Your task to perform on an android device: find which apps use the phone's location Image 0: 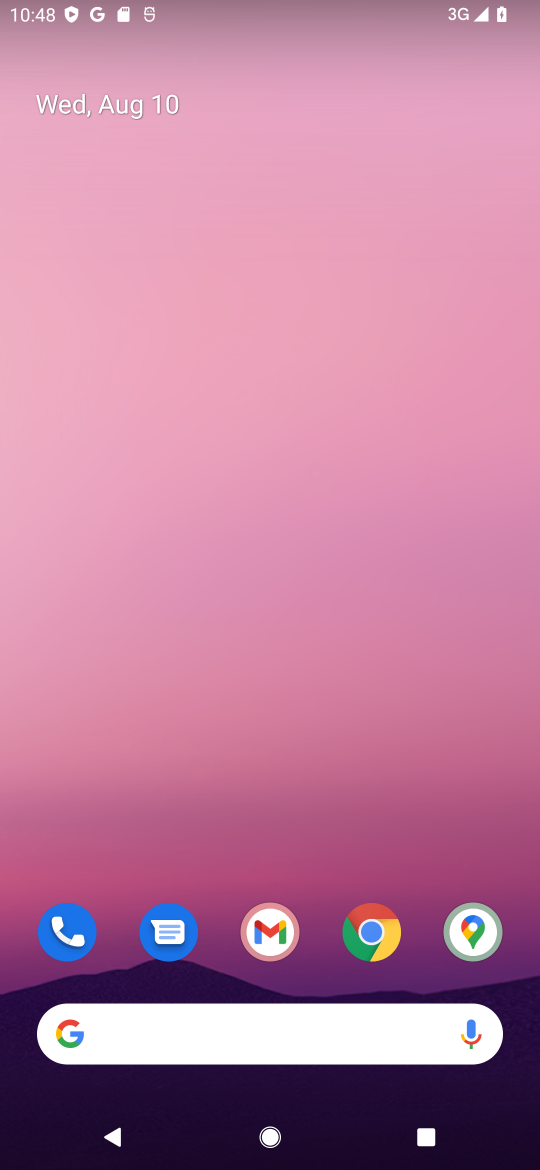
Step 0: press home button
Your task to perform on an android device: find which apps use the phone's location Image 1: 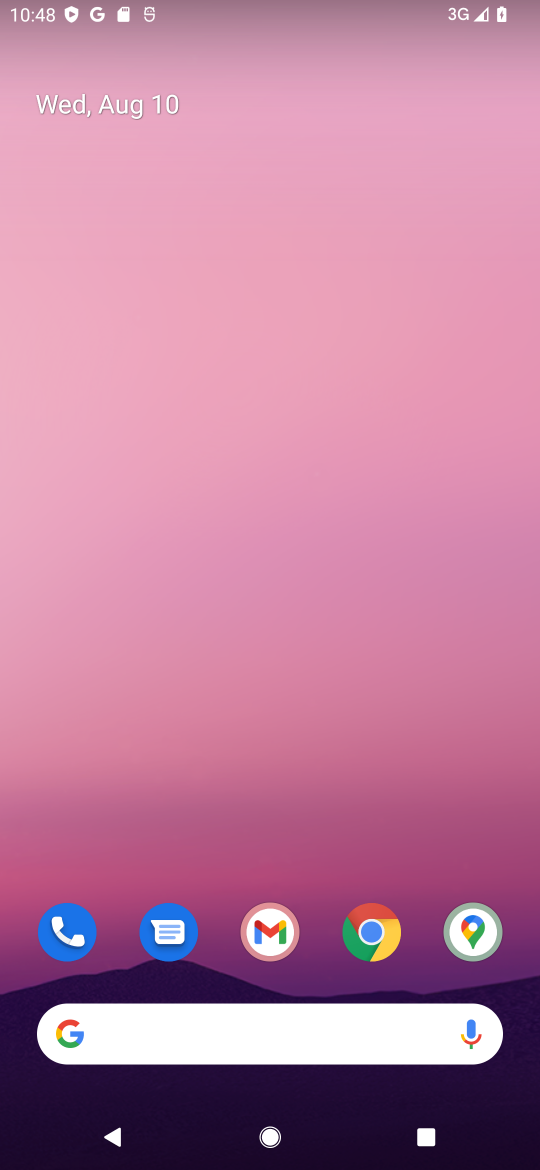
Step 1: drag from (264, 821) to (297, 8)
Your task to perform on an android device: find which apps use the phone's location Image 2: 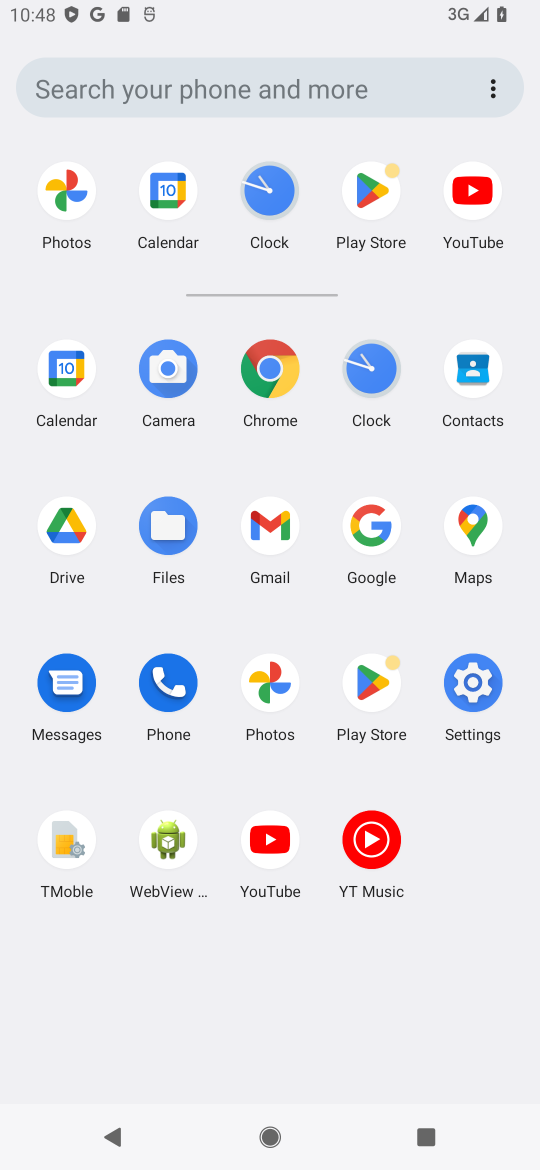
Step 2: click (472, 682)
Your task to perform on an android device: find which apps use the phone's location Image 3: 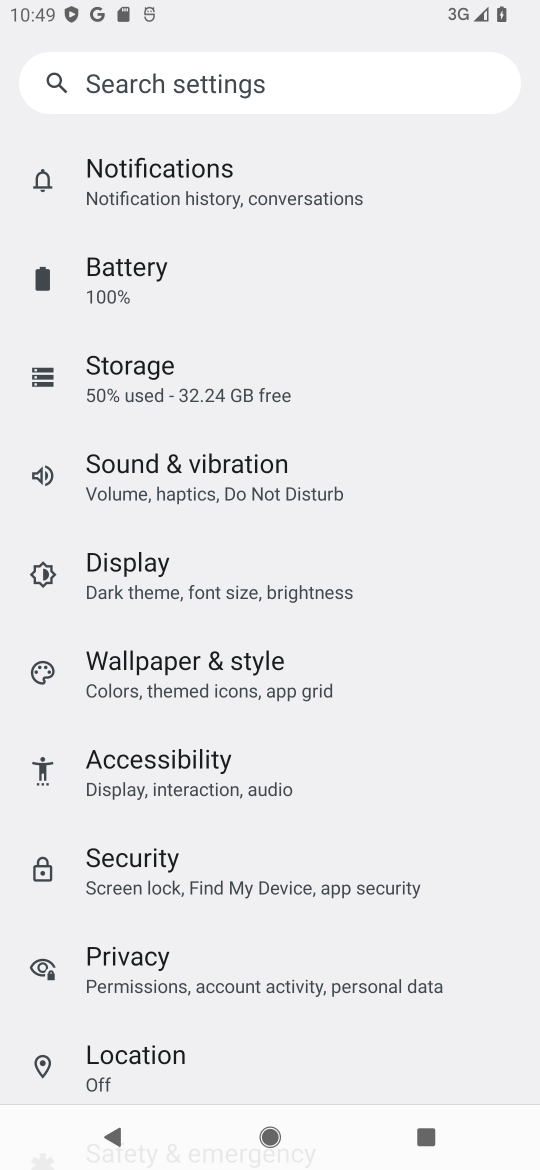
Step 3: click (142, 1042)
Your task to perform on an android device: find which apps use the phone's location Image 4: 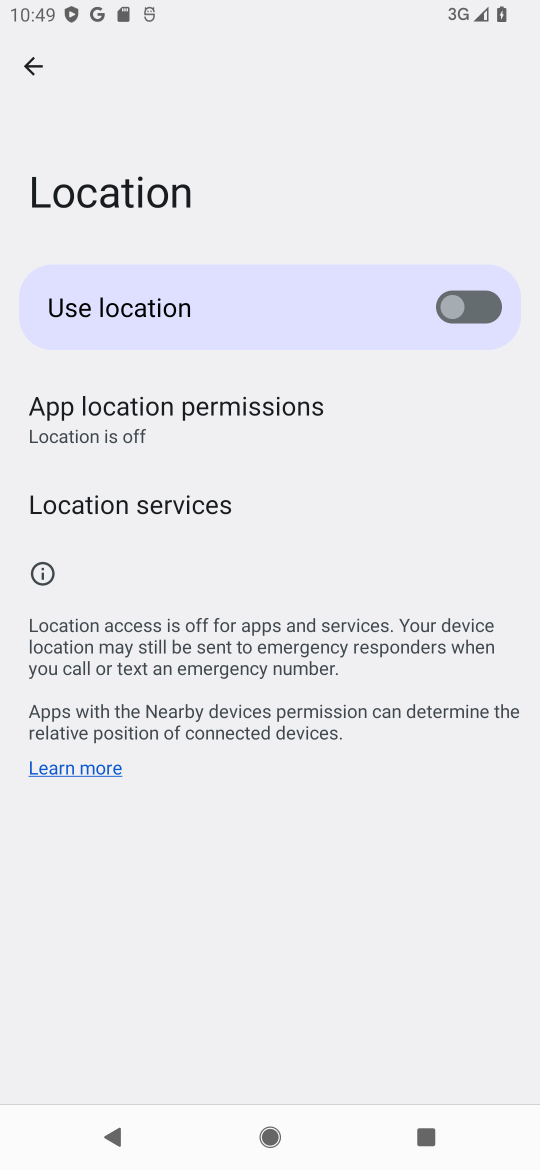
Step 4: task complete